Your task to perform on an android device: Search for sushi restaurants on Maps Image 0: 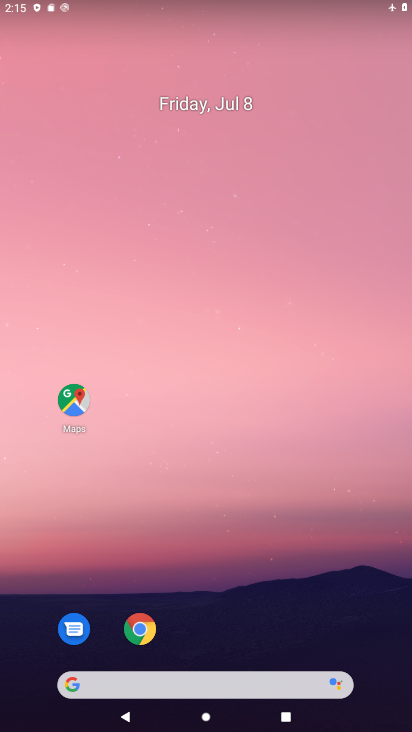
Step 0: click (58, 407)
Your task to perform on an android device: Search for sushi restaurants on Maps Image 1: 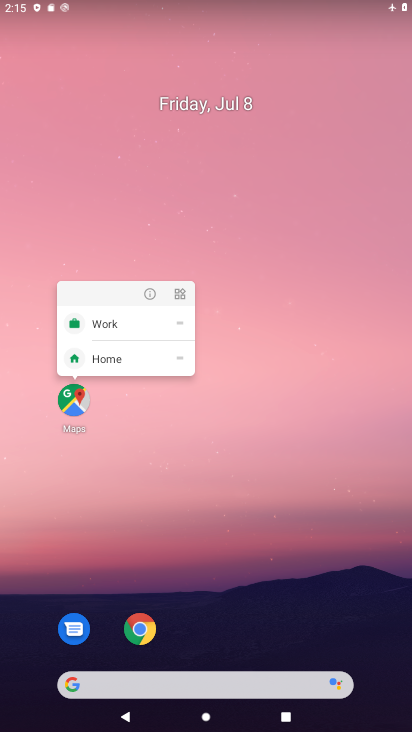
Step 1: click (95, 386)
Your task to perform on an android device: Search for sushi restaurants on Maps Image 2: 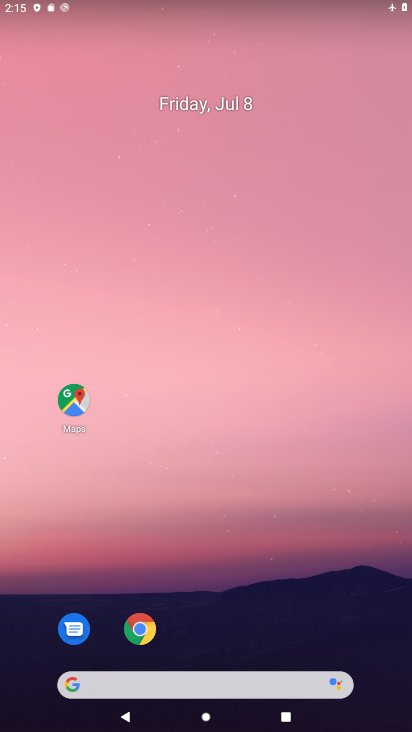
Step 2: click (82, 406)
Your task to perform on an android device: Search for sushi restaurants on Maps Image 3: 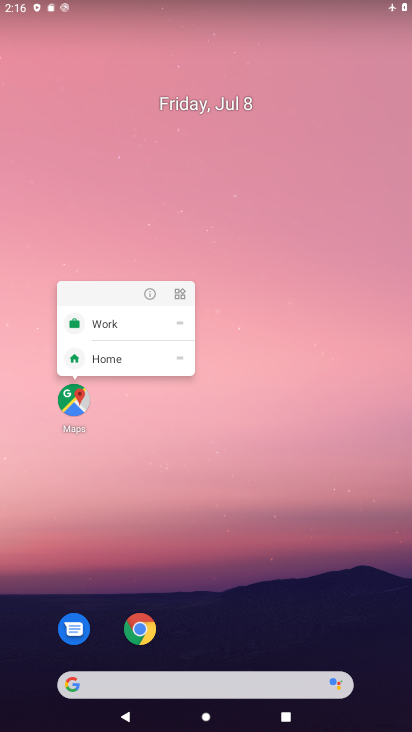
Step 3: click (58, 397)
Your task to perform on an android device: Search for sushi restaurants on Maps Image 4: 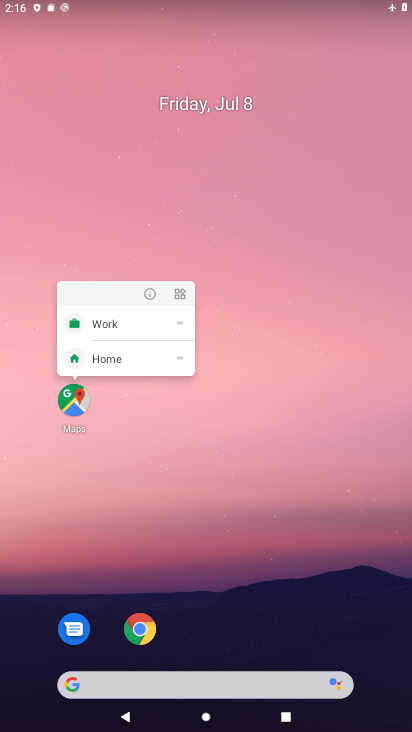
Step 4: click (76, 384)
Your task to perform on an android device: Search for sushi restaurants on Maps Image 5: 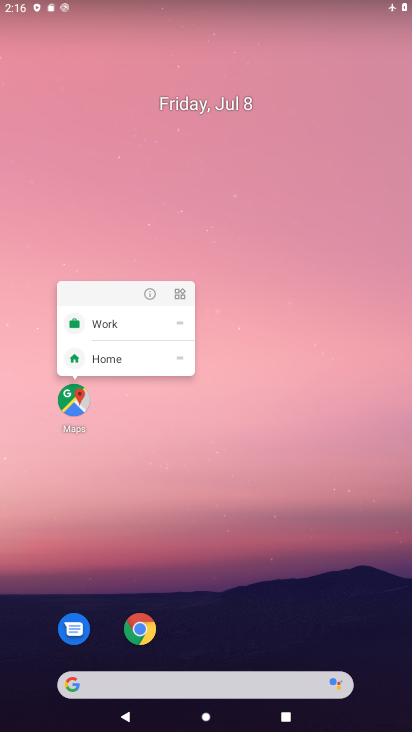
Step 5: task complete